Your task to perform on an android device: Search for the best rated kitchen reno kits on Lowes.com Image 0: 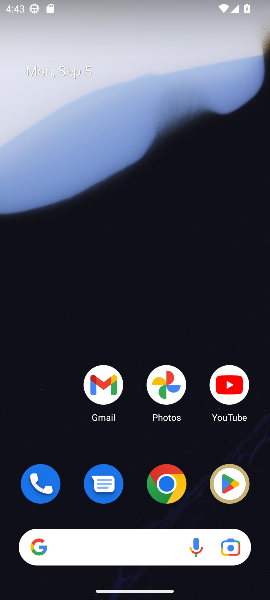
Step 0: click (166, 485)
Your task to perform on an android device: Search for the best rated kitchen reno kits on Lowes.com Image 1: 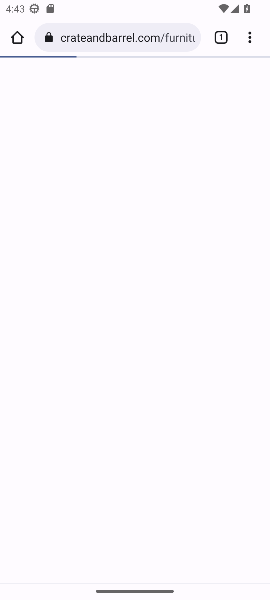
Step 1: click (154, 35)
Your task to perform on an android device: Search for the best rated kitchen reno kits on Lowes.com Image 2: 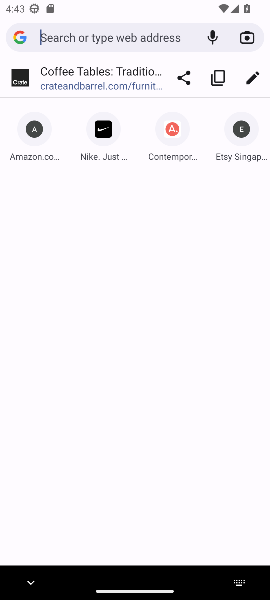
Step 2: type "Lowes.com"
Your task to perform on an android device: Search for the best rated kitchen reno kits on Lowes.com Image 3: 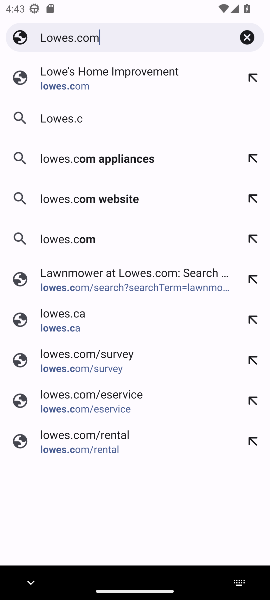
Step 3: press enter
Your task to perform on an android device: Search for the best rated kitchen reno kits on Lowes.com Image 4: 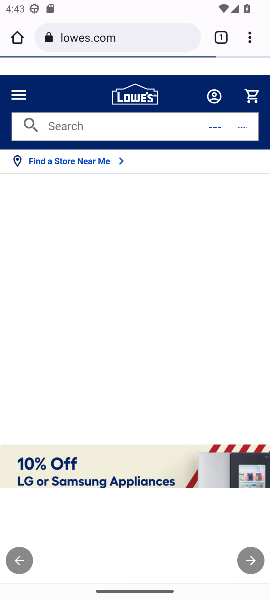
Step 4: click (150, 127)
Your task to perform on an android device: Search for the best rated kitchen reno kits on Lowes.com Image 5: 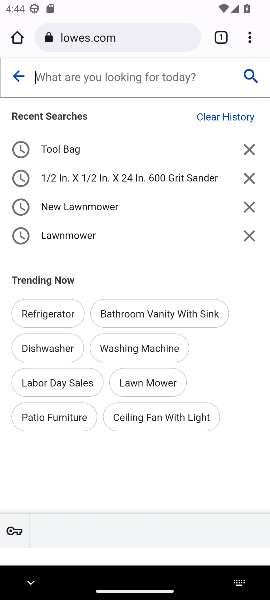
Step 5: type "kitchen reno kits "
Your task to perform on an android device: Search for the best rated kitchen reno kits on Lowes.com Image 6: 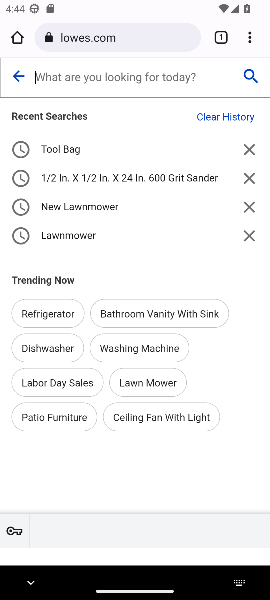
Step 6: press enter
Your task to perform on an android device: Search for the best rated kitchen reno kits on Lowes.com Image 7: 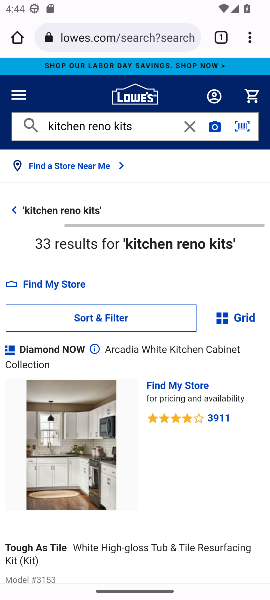
Step 7: task complete